Your task to perform on an android device: Go to wifi settings Image 0: 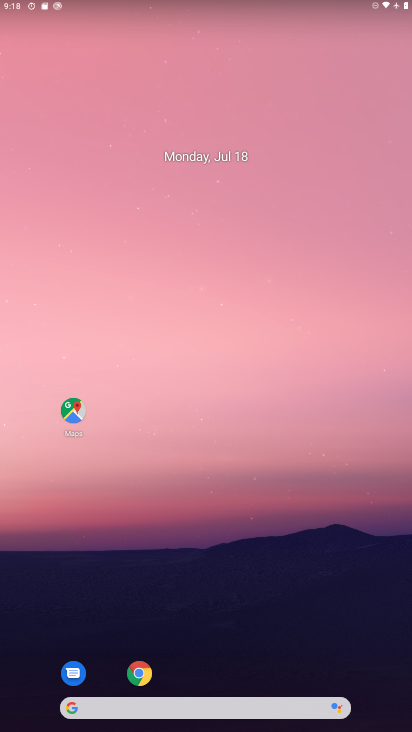
Step 0: press home button
Your task to perform on an android device: Go to wifi settings Image 1: 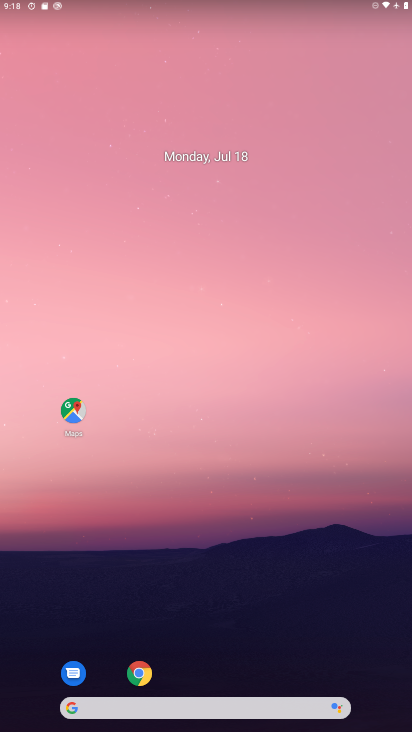
Step 1: drag from (239, 661) to (246, 182)
Your task to perform on an android device: Go to wifi settings Image 2: 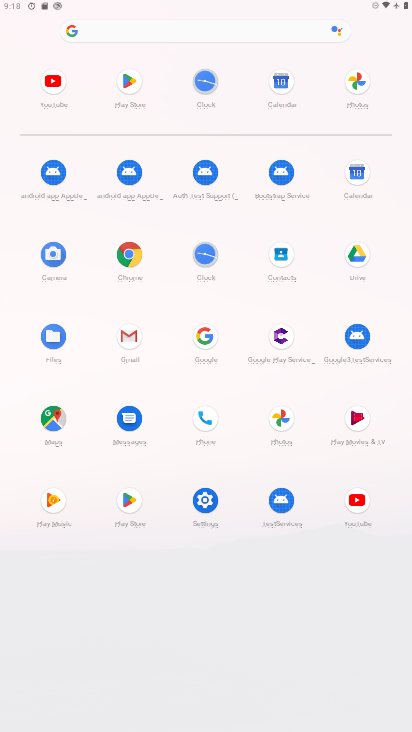
Step 2: click (197, 505)
Your task to perform on an android device: Go to wifi settings Image 3: 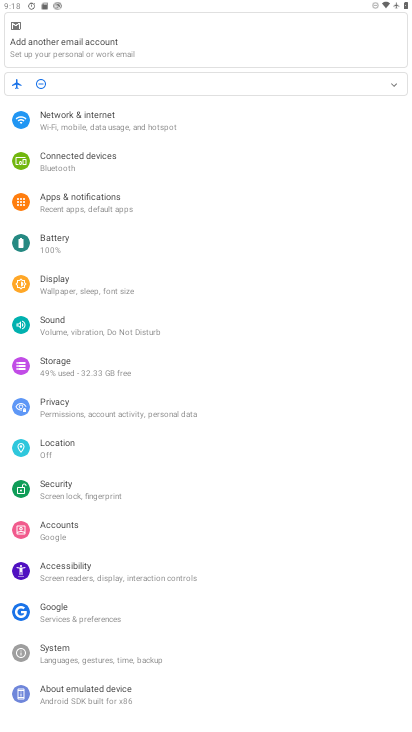
Step 3: click (92, 125)
Your task to perform on an android device: Go to wifi settings Image 4: 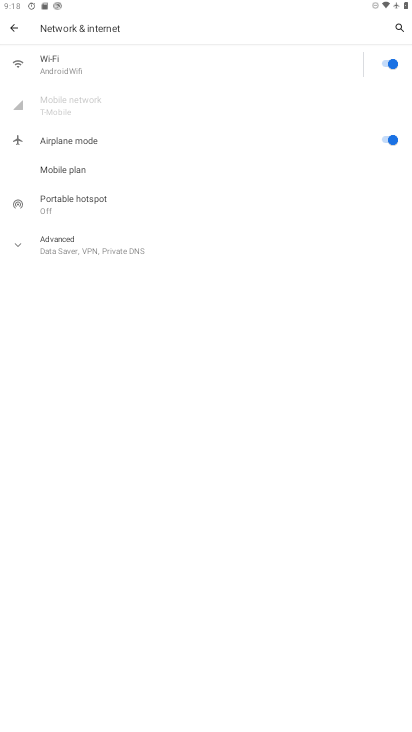
Step 4: click (54, 65)
Your task to perform on an android device: Go to wifi settings Image 5: 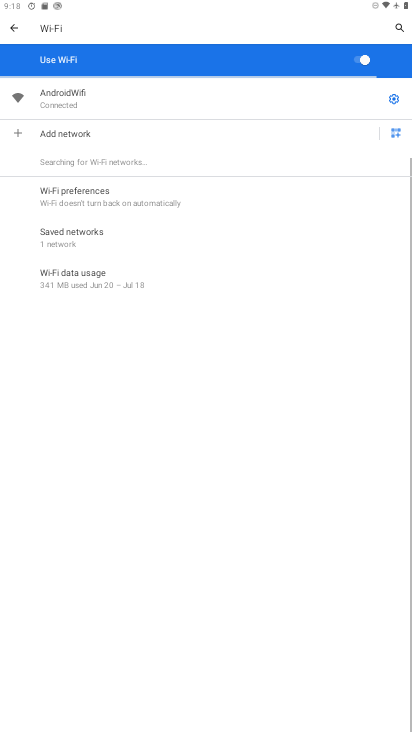
Step 5: task complete